Your task to perform on an android device: See recent photos Image 0: 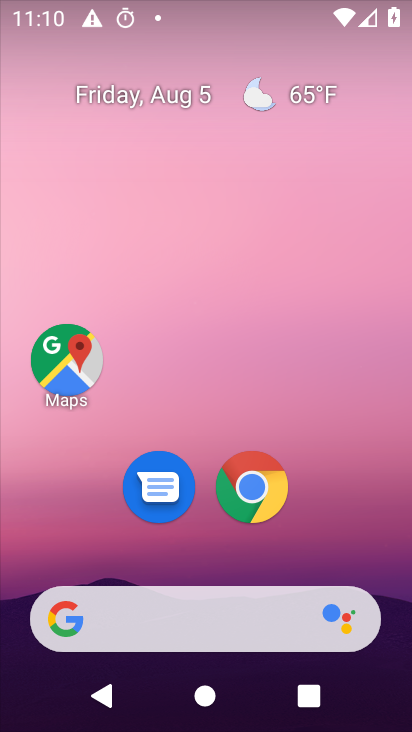
Step 0: drag from (222, 510) to (336, 53)
Your task to perform on an android device: See recent photos Image 1: 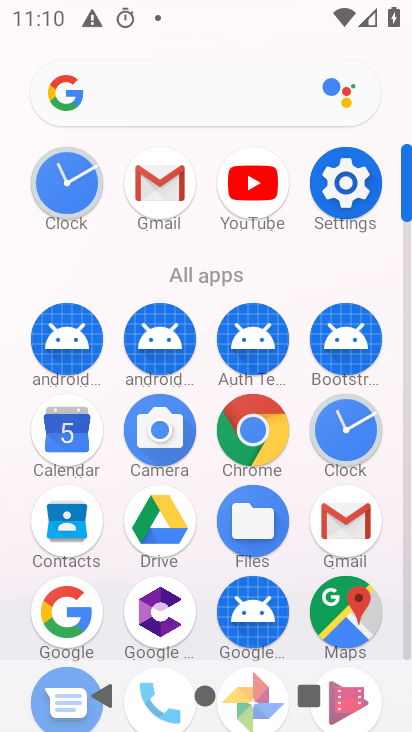
Step 1: drag from (241, 562) to (357, 97)
Your task to perform on an android device: See recent photos Image 2: 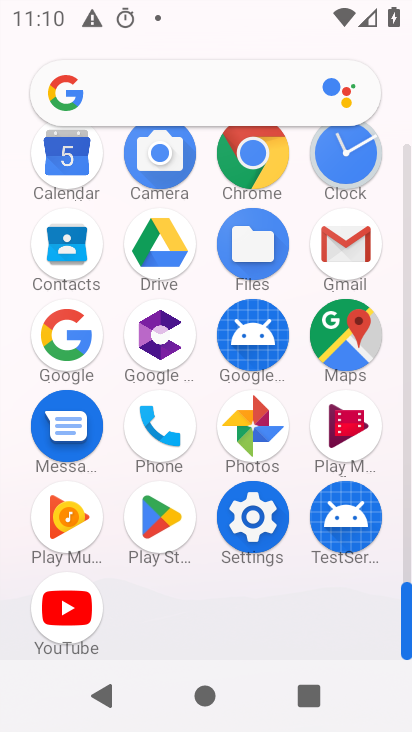
Step 2: click (250, 441)
Your task to perform on an android device: See recent photos Image 3: 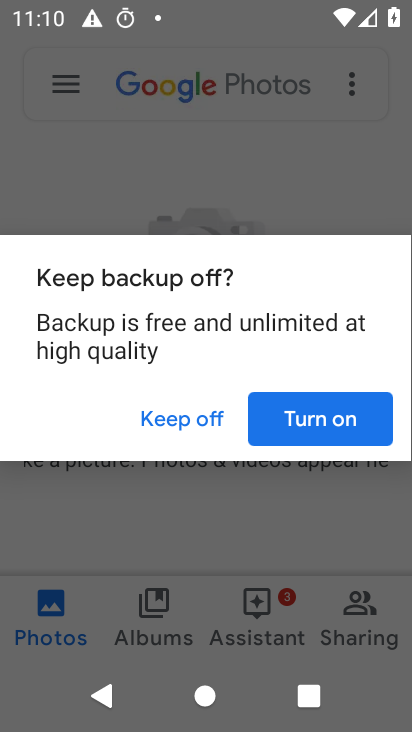
Step 3: click (193, 409)
Your task to perform on an android device: See recent photos Image 4: 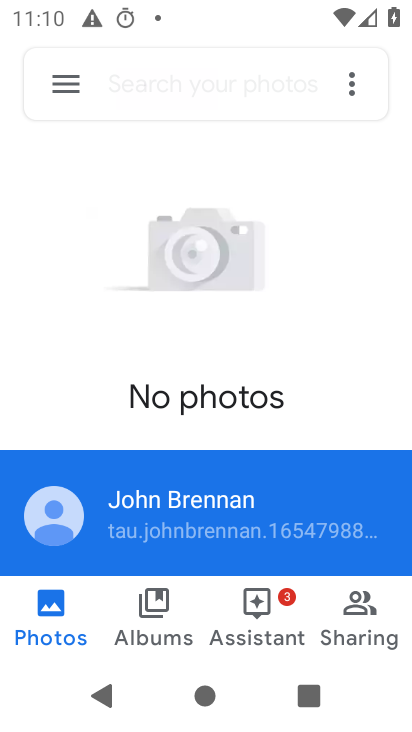
Step 4: task complete